Your task to perform on an android device: Open Youtube and go to the subscriptions tab Image 0: 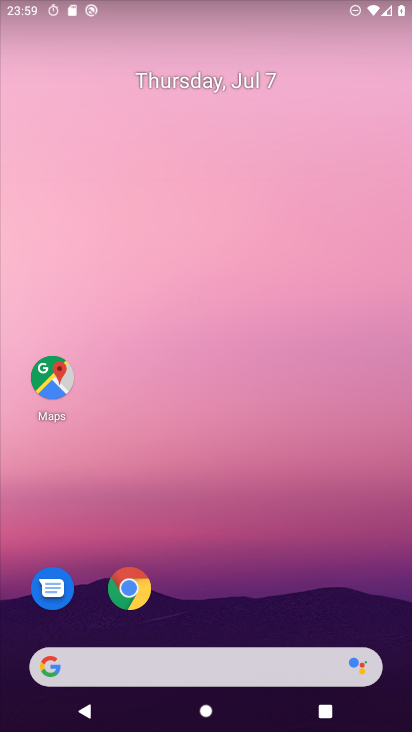
Step 0: drag from (293, 551) to (277, 61)
Your task to perform on an android device: Open Youtube and go to the subscriptions tab Image 1: 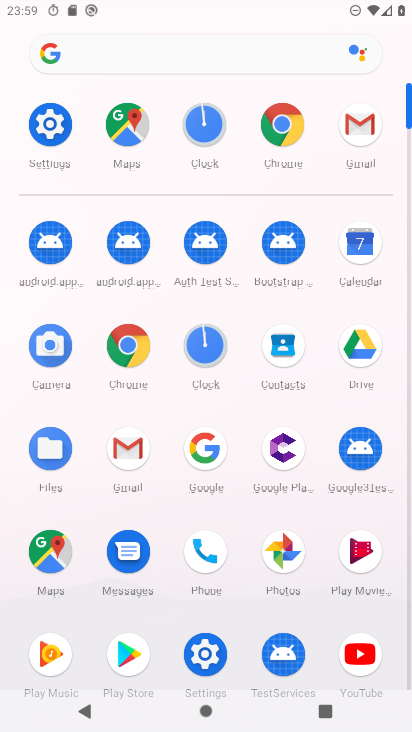
Step 1: click (359, 655)
Your task to perform on an android device: Open Youtube and go to the subscriptions tab Image 2: 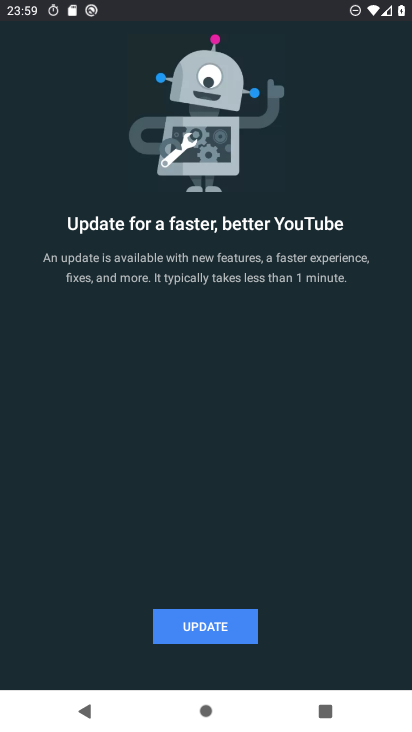
Step 2: task complete